Your task to perform on an android device: change timer sound Image 0: 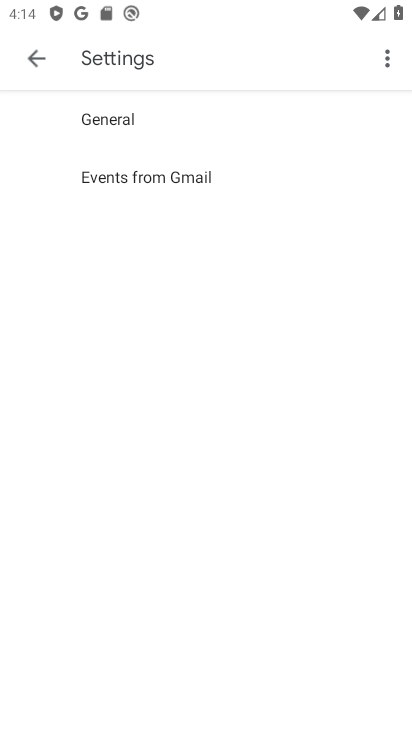
Step 0: press home button
Your task to perform on an android device: change timer sound Image 1: 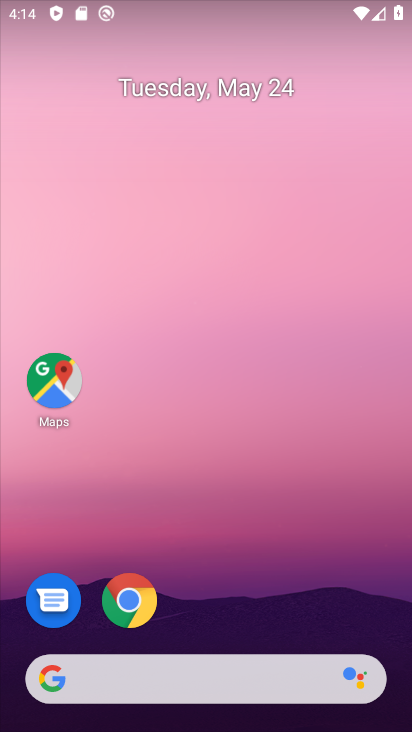
Step 1: drag from (209, 592) to (348, 117)
Your task to perform on an android device: change timer sound Image 2: 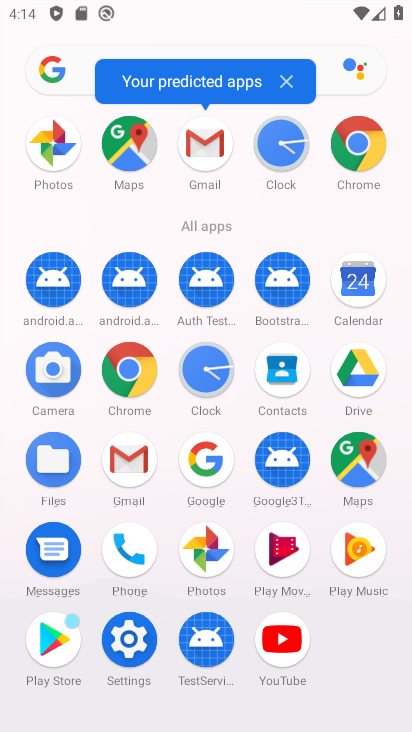
Step 2: click (205, 382)
Your task to perform on an android device: change timer sound Image 3: 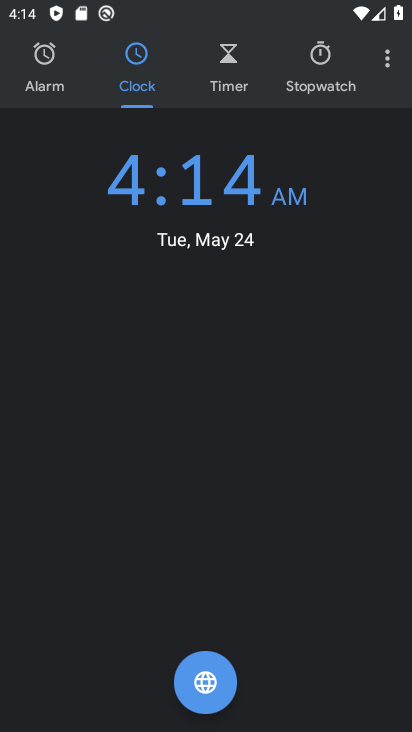
Step 3: click (387, 63)
Your task to perform on an android device: change timer sound Image 4: 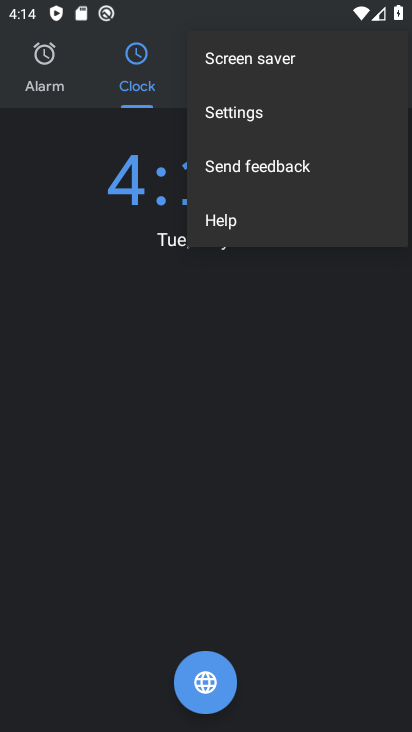
Step 4: click (300, 111)
Your task to perform on an android device: change timer sound Image 5: 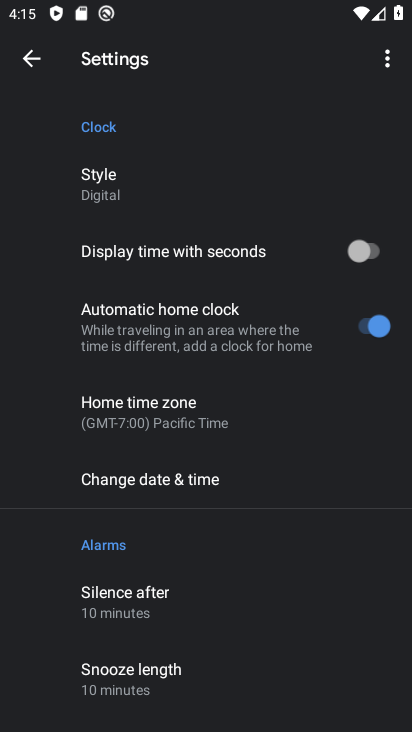
Step 5: drag from (213, 619) to (328, 292)
Your task to perform on an android device: change timer sound Image 6: 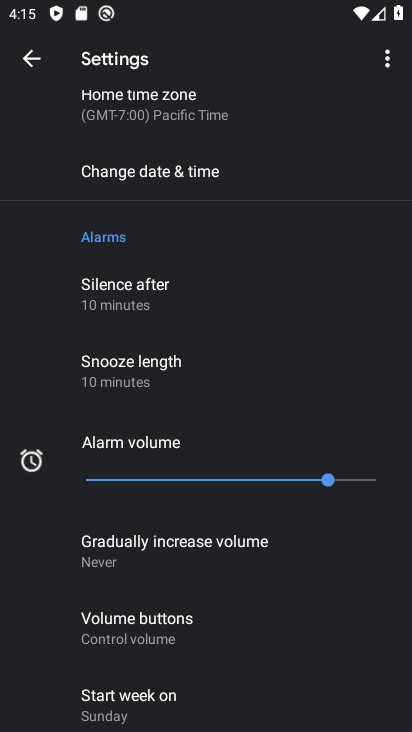
Step 6: drag from (230, 570) to (338, 279)
Your task to perform on an android device: change timer sound Image 7: 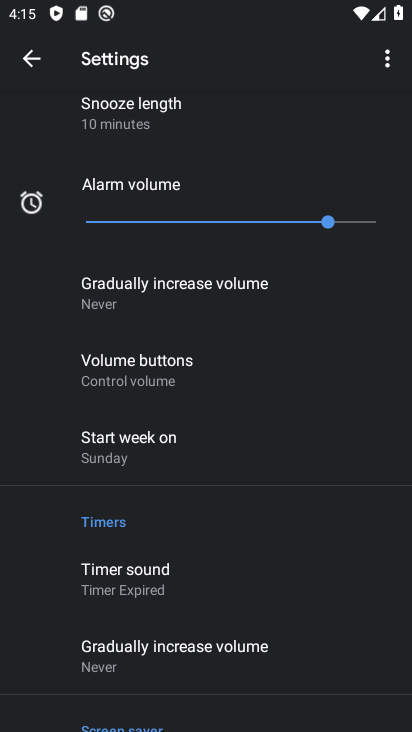
Step 7: drag from (194, 611) to (304, 320)
Your task to perform on an android device: change timer sound Image 8: 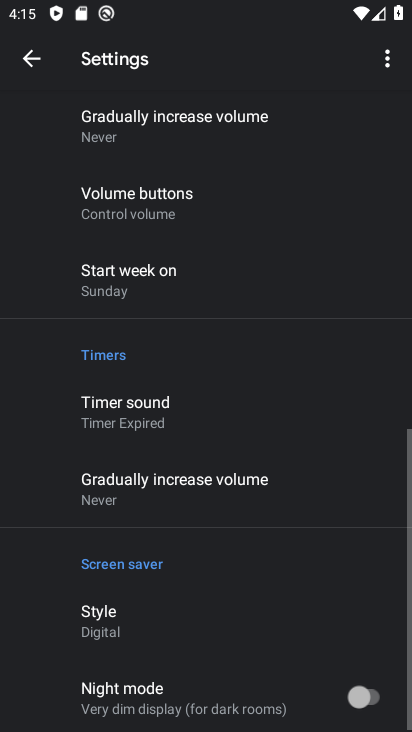
Step 8: click (182, 432)
Your task to perform on an android device: change timer sound Image 9: 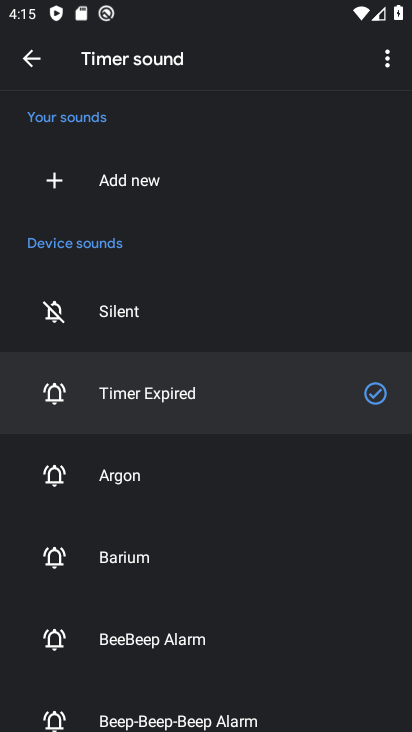
Step 9: click (189, 557)
Your task to perform on an android device: change timer sound Image 10: 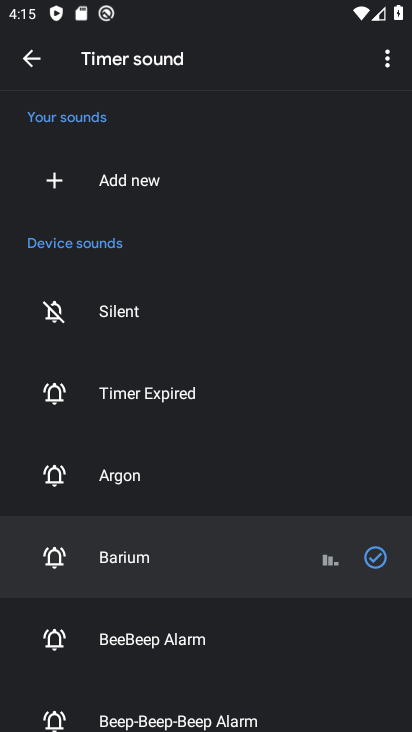
Step 10: task complete